Your task to perform on an android device: Set the phone to "Do not disturb". Image 0: 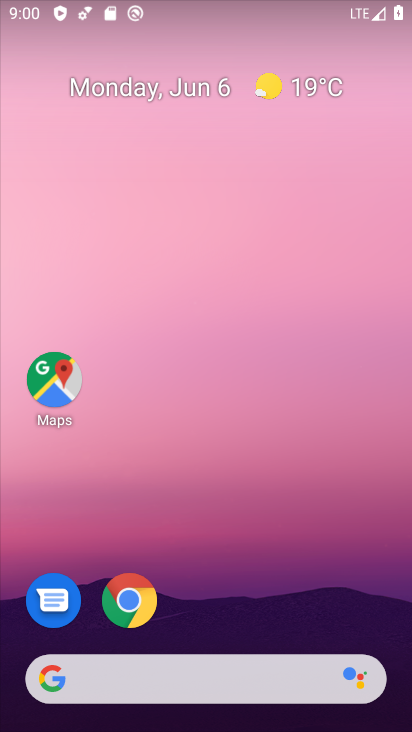
Step 0: drag from (222, 57) to (143, 19)
Your task to perform on an android device: Set the phone to "Do not disturb". Image 1: 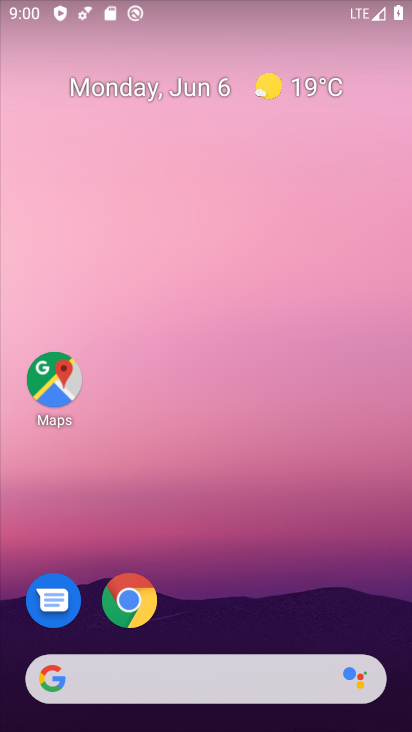
Step 1: drag from (282, 536) to (230, 4)
Your task to perform on an android device: Set the phone to "Do not disturb". Image 2: 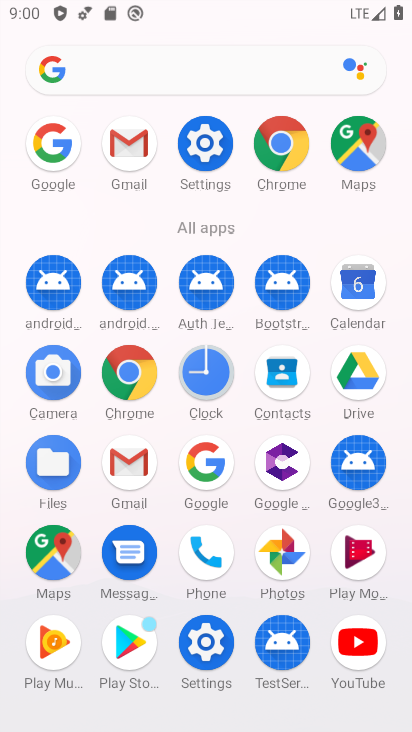
Step 2: click (210, 158)
Your task to perform on an android device: Set the phone to "Do not disturb". Image 3: 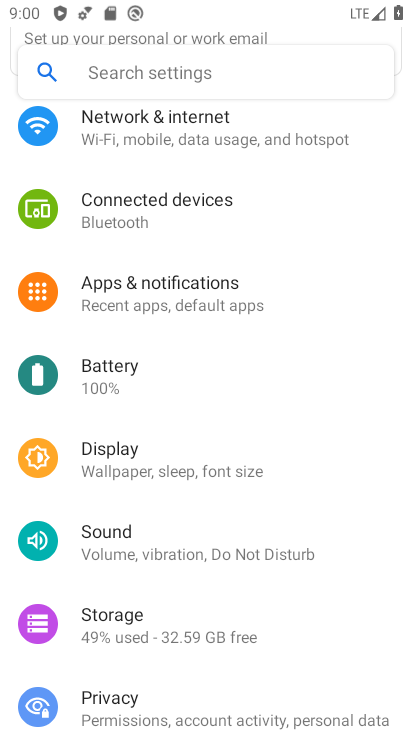
Step 3: click (202, 536)
Your task to perform on an android device: Set the phone to "Do not disturb". Image 4: 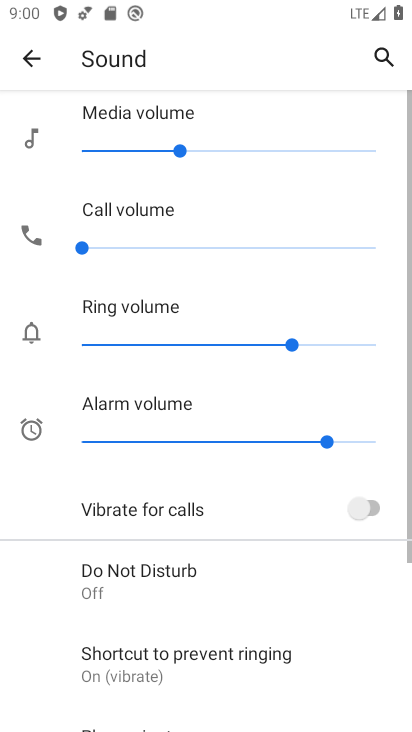
Step 4: click (207, 569)
Your task to perform on an android device: Set the phone to "Do not disturb". Image 5: 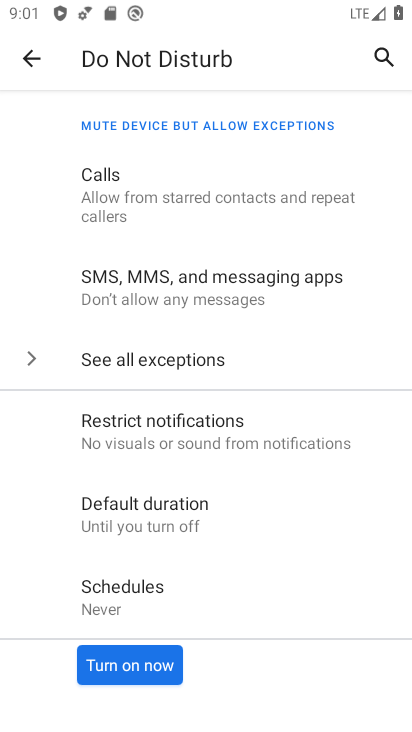
Step 5: click (117, 666)
Your task to perform on an android device: Set the phone to "Do not disturb". Image 6: 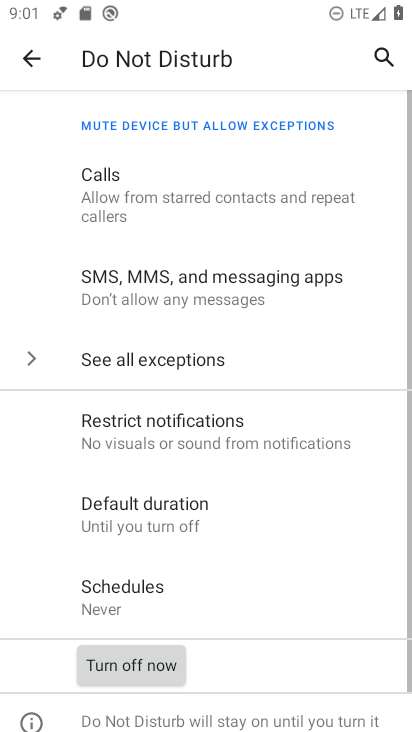
Step 6: task complete